Your task to perform on an android device: move an email to a new category in the gmail app Image 0: 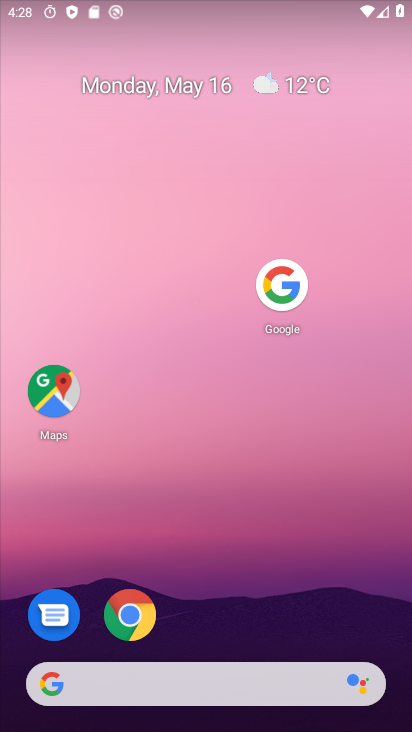
Step 0: drag from (192, 650) to (170, 3)
Your task to perform on an android device: move an email to a new category in the gmail app Image 1: 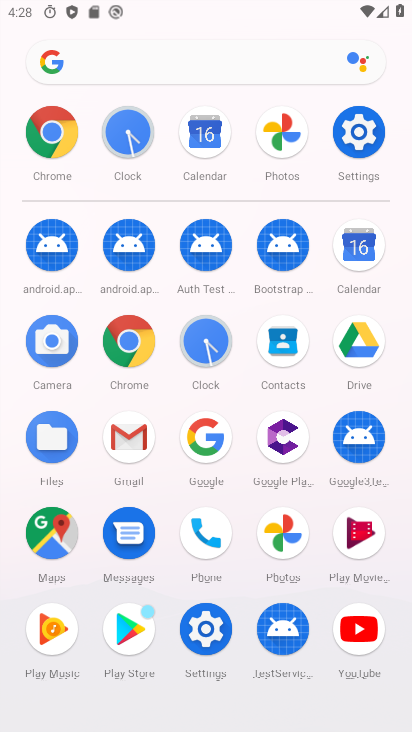
Step 1: click (127, 440)
Your task to perform on an android device: move an email to a new category in the gmail app Image 2: 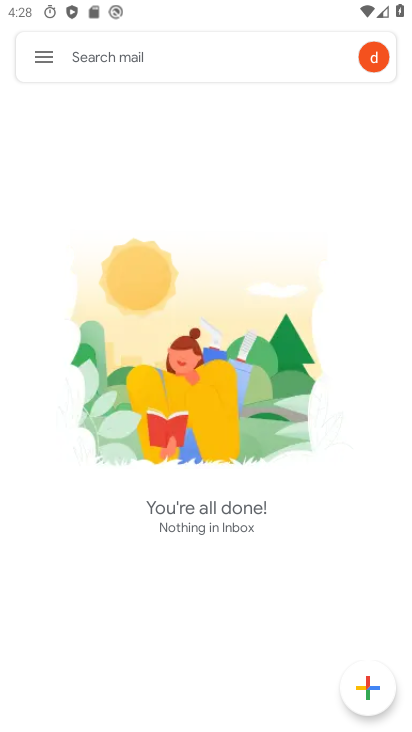
Step 2: task complete